Your task to perform on an android device: What's on my calendar today? Image 0: 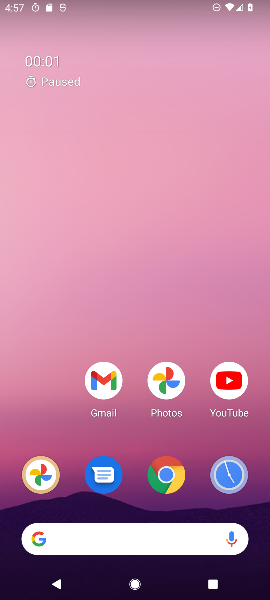
Step 0: drag from (37, 574) to (150, 254)
Your task to perform on an android device: What's on my calendar today? Image 1: 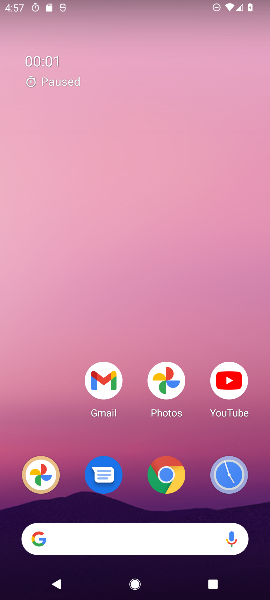
Step 1: drag from (23, 571) to (86, 6)
Your task to perform on an android device: What's on my calendar today? Image 2: 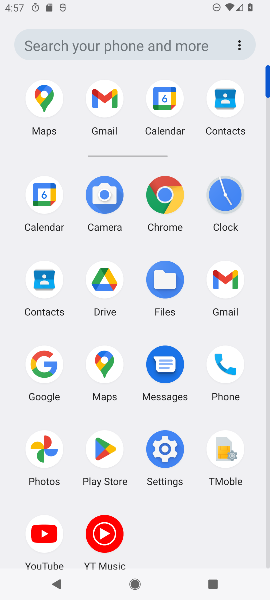
Step 2: click (162, 127)
Your task to perform on an android device: What's on my calendar today? Image 3: 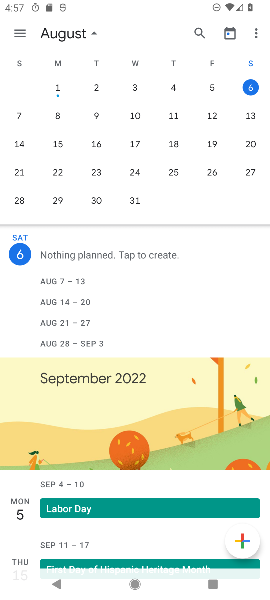
Step 3: task complete